Your task to perform on an android device: turn notification dots off Image 0: 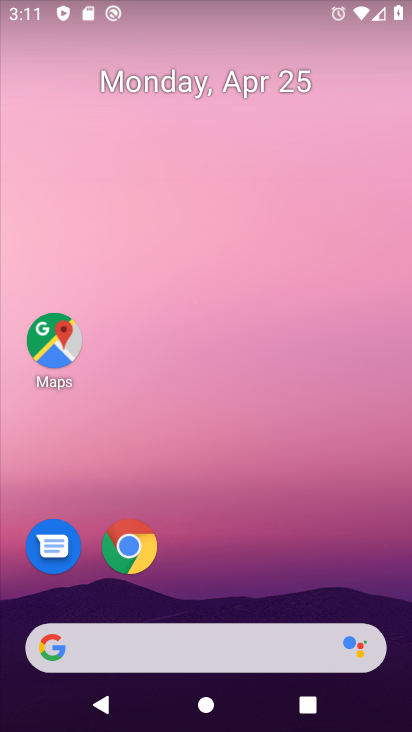
Step 0: drag from (290, 559) to (291, 121)
Your task to perform on an android device: turn notification dots off Image 1: 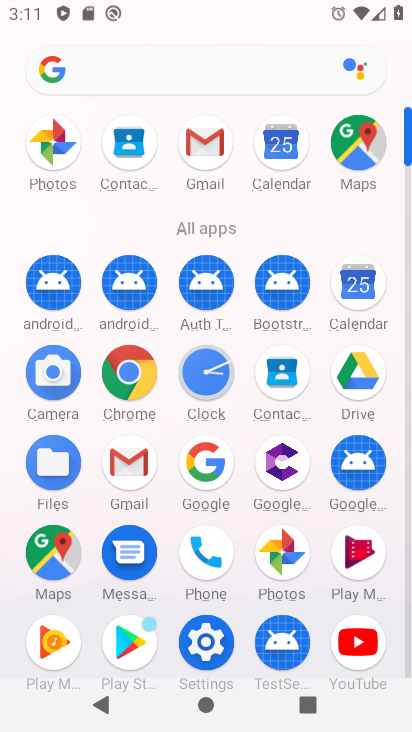
Step 1: click (209, 640)
Your task to perform on an android device: turn notification dots off Image 2: 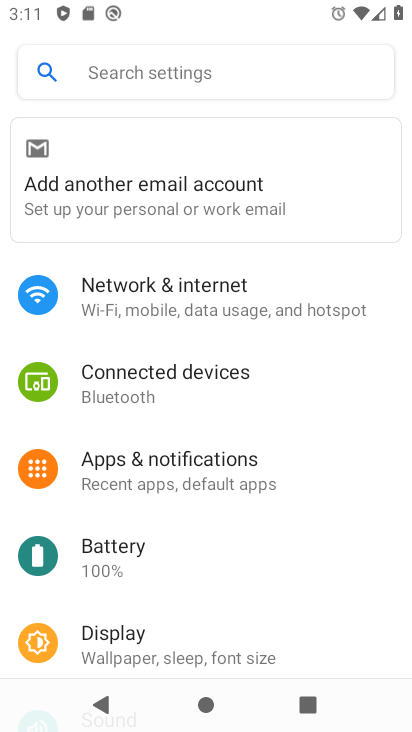
Step 2: drag from (171, 630) to (171, 535)
Your task to perform on an android device: turn notification dots off Image 3: 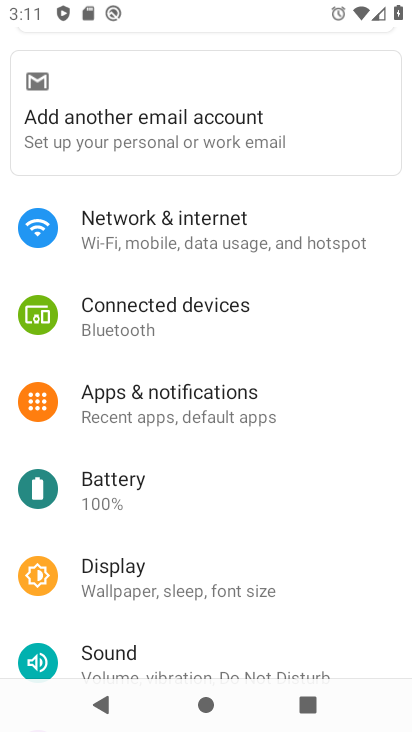
Step 3: click (205, 411)
Your task to perform on an android device: turn notification dots off Image 4: 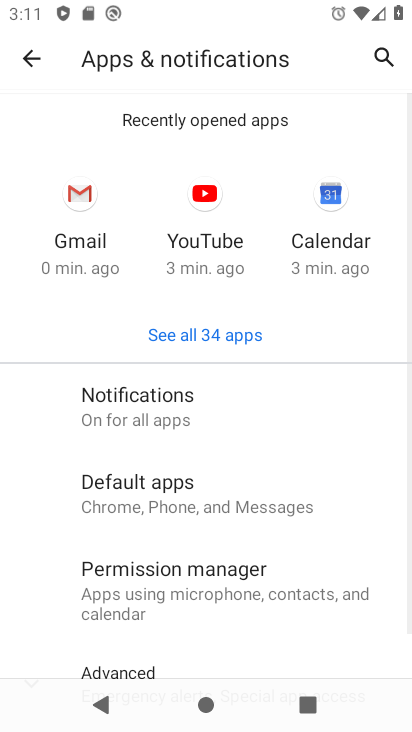
Step 4: click (221, 423)
Your task to perform on an android device: turn notification dots off Image 5: 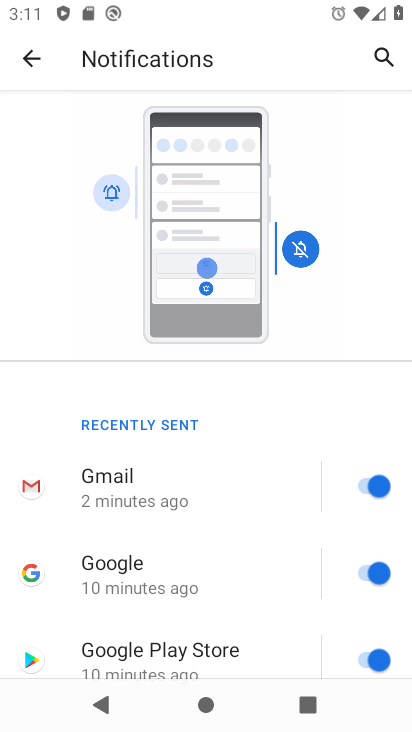
Step 5: drag from (256, 555) to (259, 310)
Your task to perform on an android device: turn notification dots off Image 6: 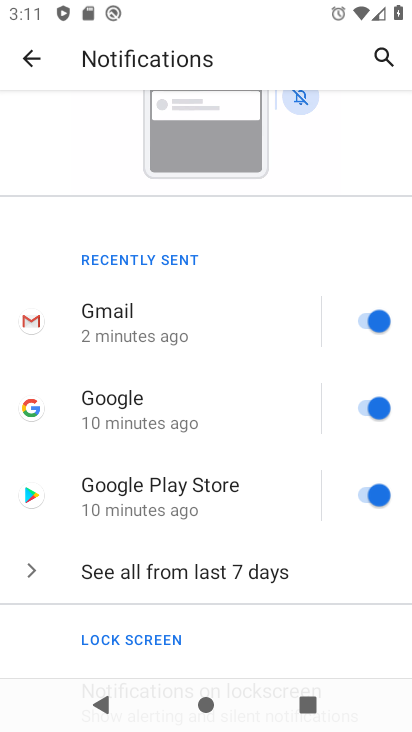
Step 6: drag from (213, 590) to (212, 245)
Your task to perform on an android device: turn notification dots off Image 7: 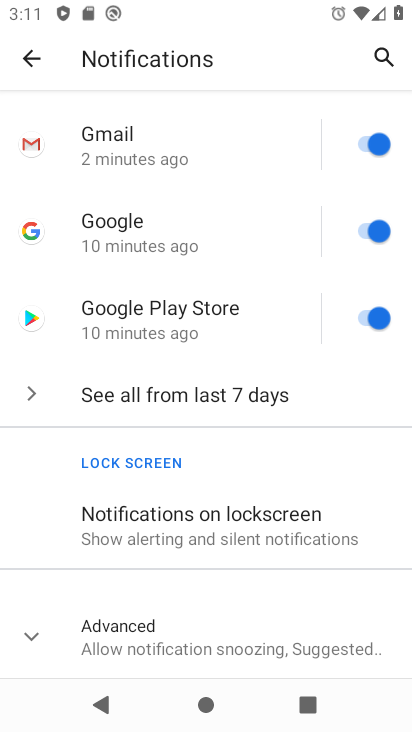
Step 7: click (201, 635)
Your task to perform on an android device: turn notification dots off Image 8: 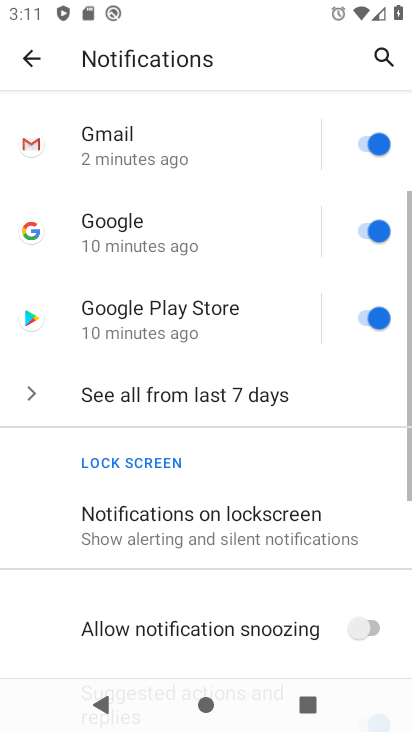
Step 8: drag from (199, 634) to (214, 334)
Your task to perform on an android device: turn notification dots off Image 9: 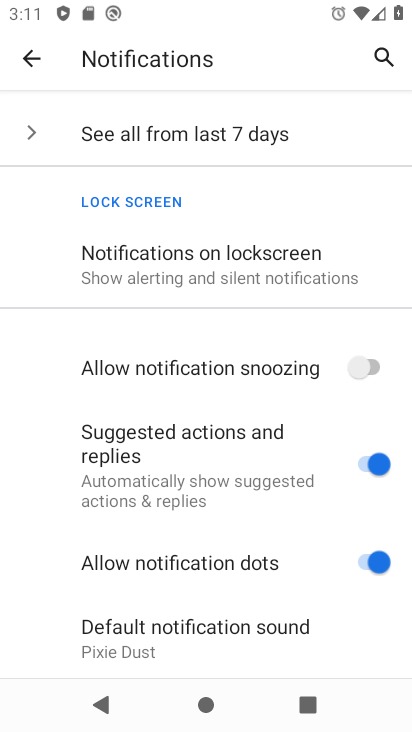
Step 9: click (366, 565)
Your task to perform on an android device: turn notification dots off Image 10: 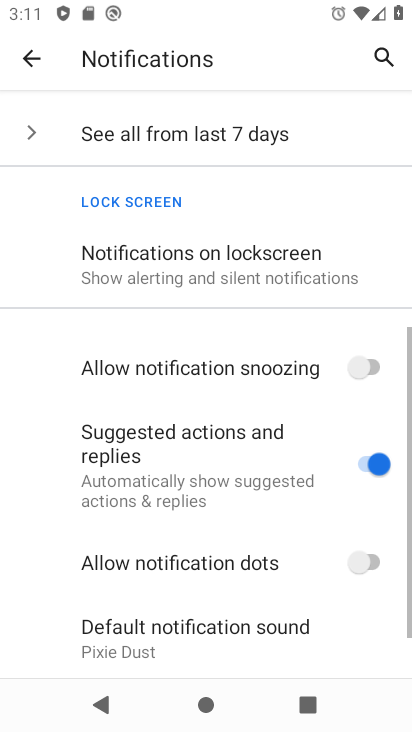
Step 10: task complete